Your task to perform on an android device: turn off wifi Image 0: 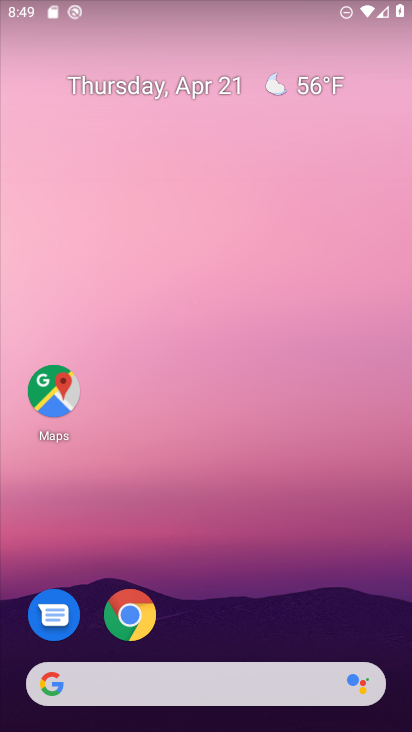
Step 0: drag from (276, 565) to (219, 97)
Your task to perform on an android device: turn off wifi Image 1: 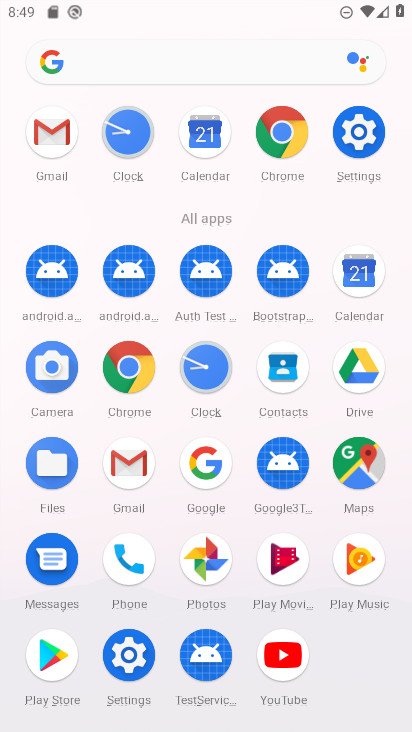
Step 1: click (354, 134)
Your task to perform on an android device: turn off wifi Image 2: 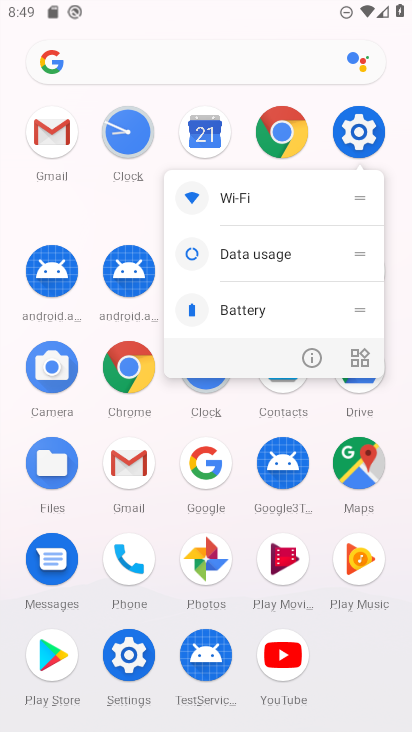
Step 2: click (354, 134)
Your task to perform on an android device: turn off wifi Image 3: 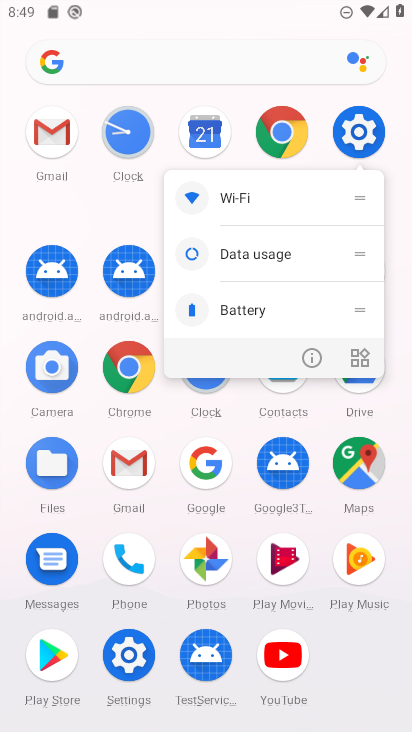
Step 3: click (354, 133)
Your task to perform on an android device: turn off wifi Image 4: 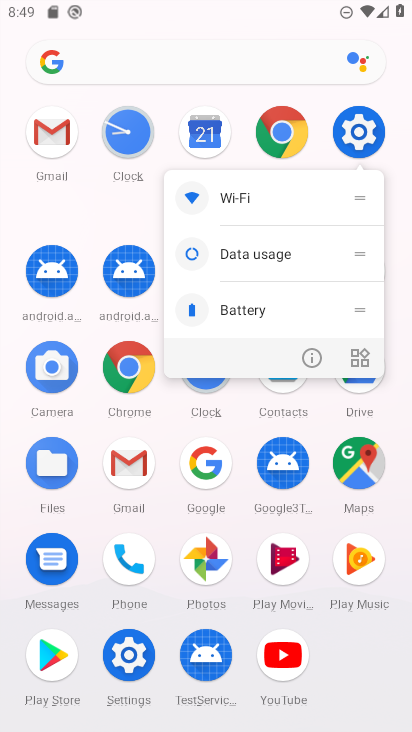
Step 4: click (354, 133)
Your task to perform on an android device: turn off wifi Image 5: 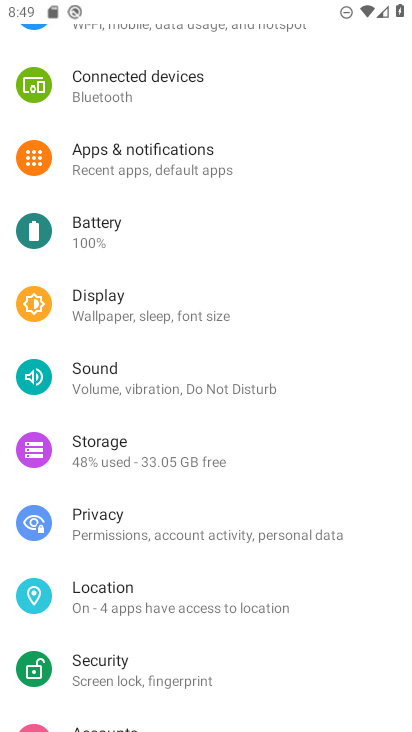
Step 5: drag from (160, 270) to (200, 561)
Your task to perform on an android device: turn off wifi Image 6: 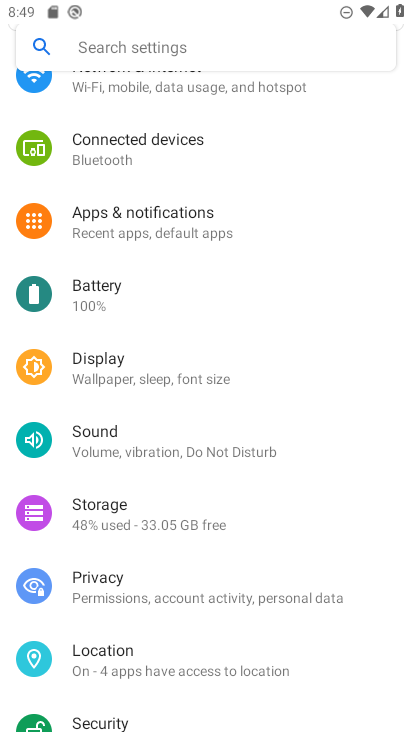
Step 6: drag from (255, 234) to (235, 572)
Your task to perform on an android device: turn off wifi Image 7: 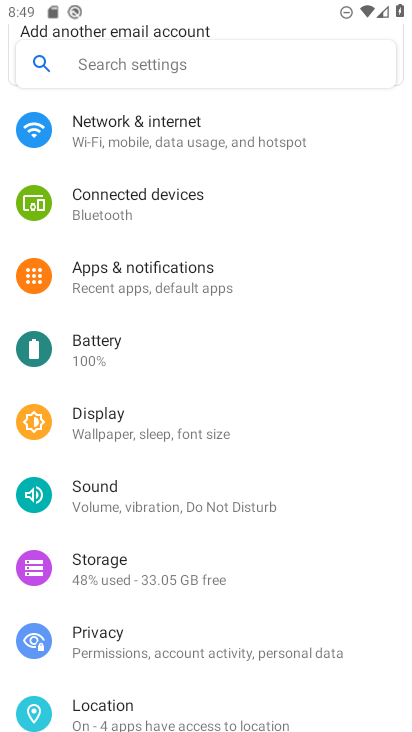
Step 7: drag from (200, 399) to (188, 637)
Your task to perform on an android device: turn off wifi Image 8: 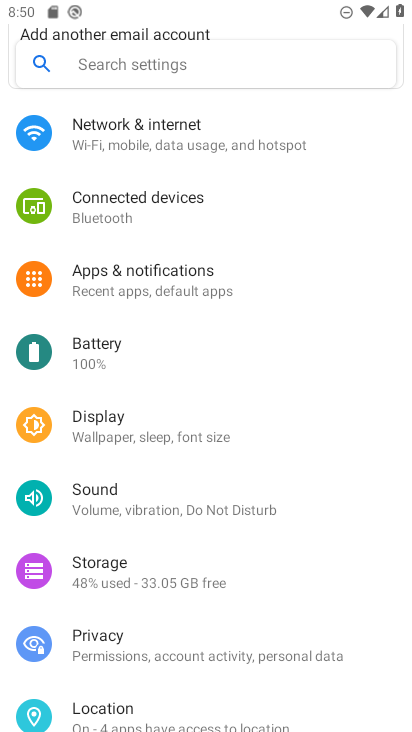
Step 8: click (142, 133)
Your task to perform on an android device: turn off wifi Image 9: 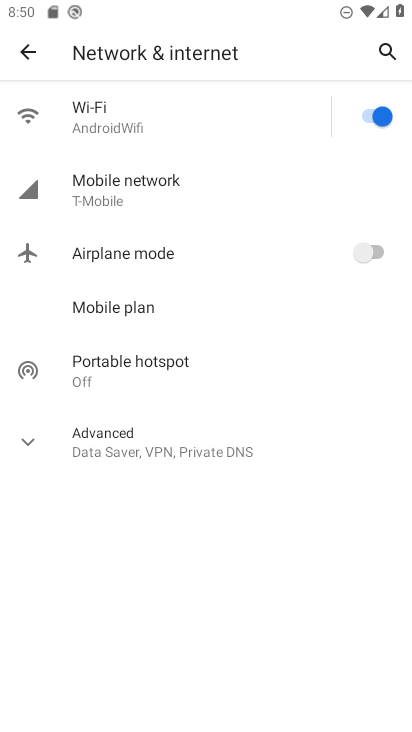
Step 9: click (378, 125)
Your task to perform on an android device: turn off wifi Image 10: 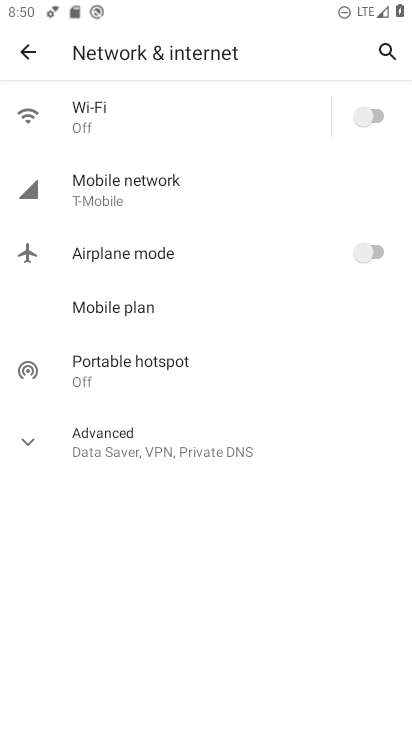
Step 10: task complete